Your task to perform on an android device: turn off javascript in the chrome app Image 0: 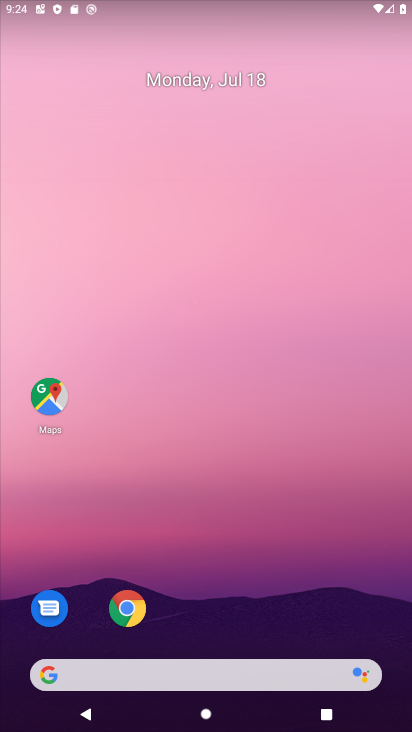
Step 0: click (130, 603)
Your task to perform on an android device: turn off javascript in the chrome app Image 1: 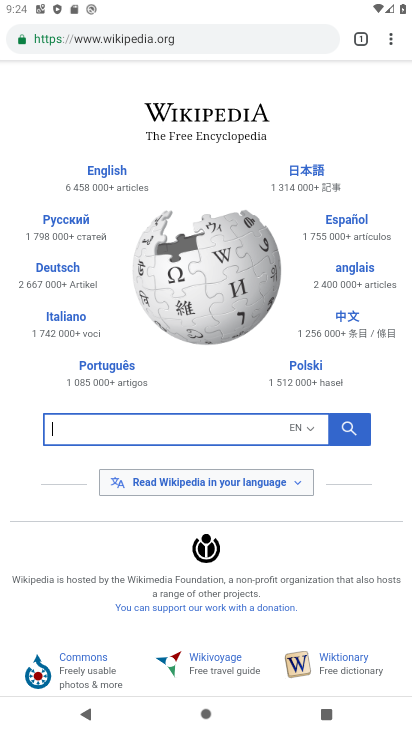
Step 1: click (391, 40)
Your task to perform on an android device: turn off javascript in the chrome app Image 2: 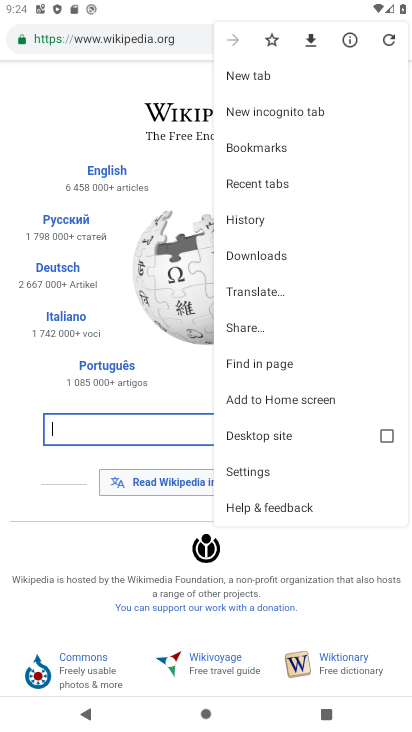
Step 2: click (262, 471)
Your task to perform on an android device: turn off javascript in the chrome app Image 3: 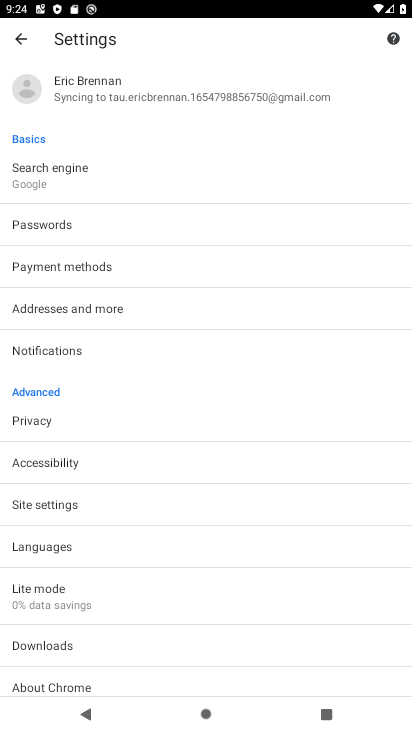
Step 3: click (63, 506)
Your task to perform on an android device: turn off javascript in the chrome app Image 4: 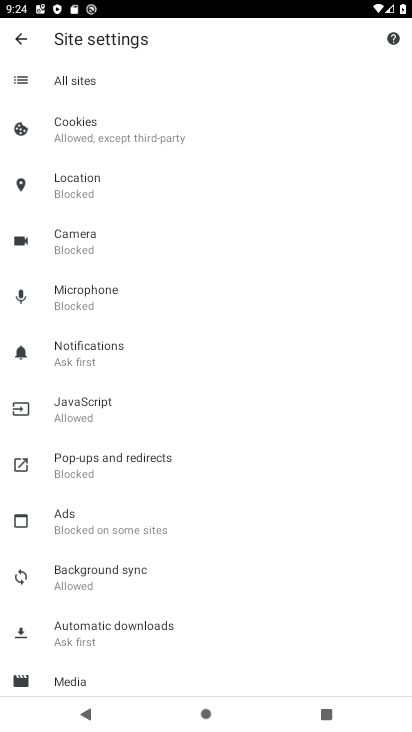
Step 4: click (100, 417)
Your task to perform on an android device: turn off javascript in the chrome app Image 5: 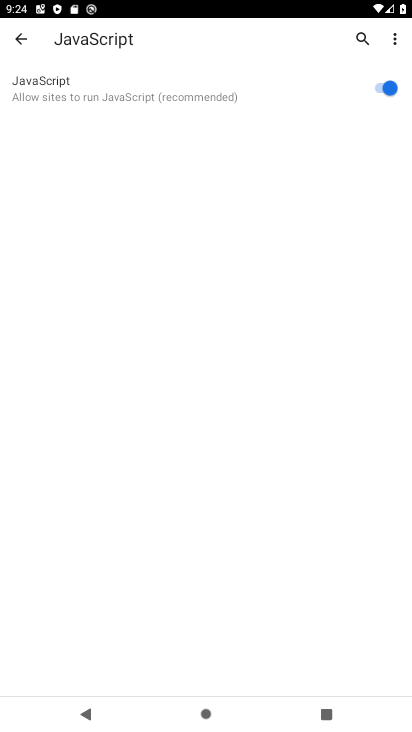
Step 5: click (358, 92)
Your task to perform on an android device: turn off javascript in the chrome app Image 6: 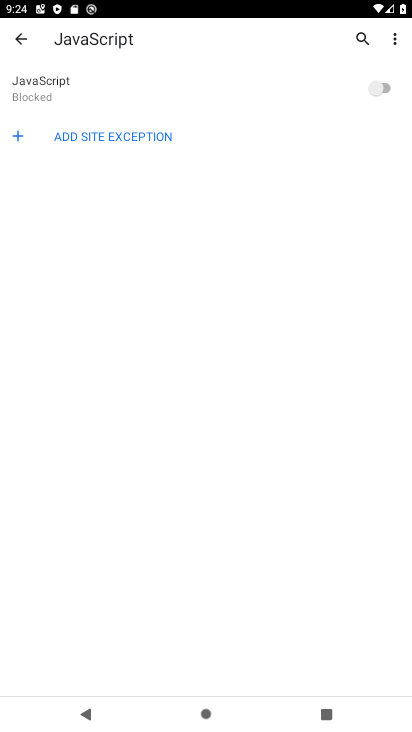
Step 6: task complete